Your task to perform on an android device: Look up the best rated desk lamps on IKEA Image 0: 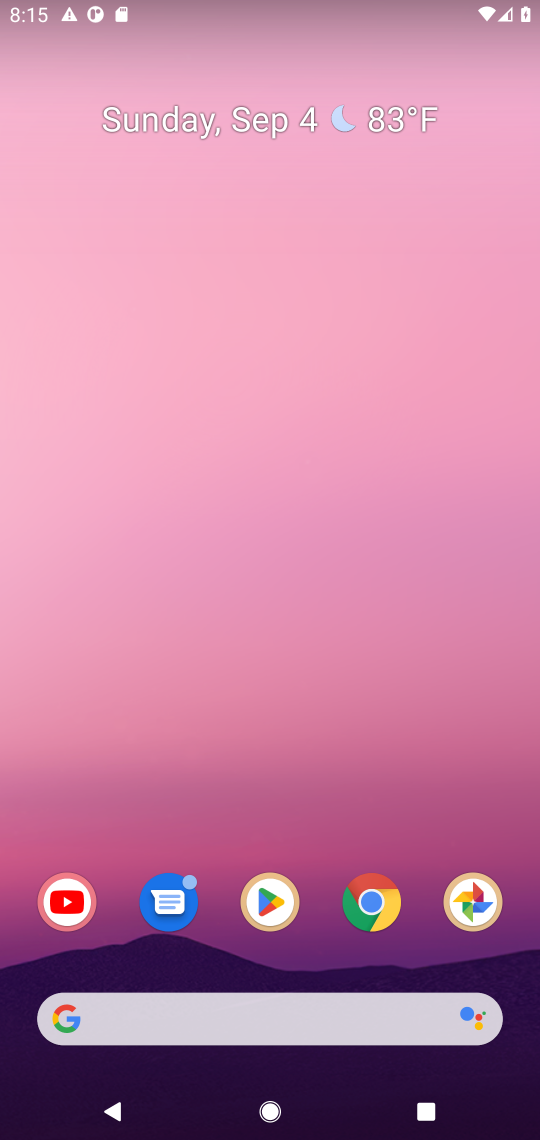
Step 0: click (62, 915)
Your task to perform on an android device: Look up the best rated desk lamps on IKEA Image 1: 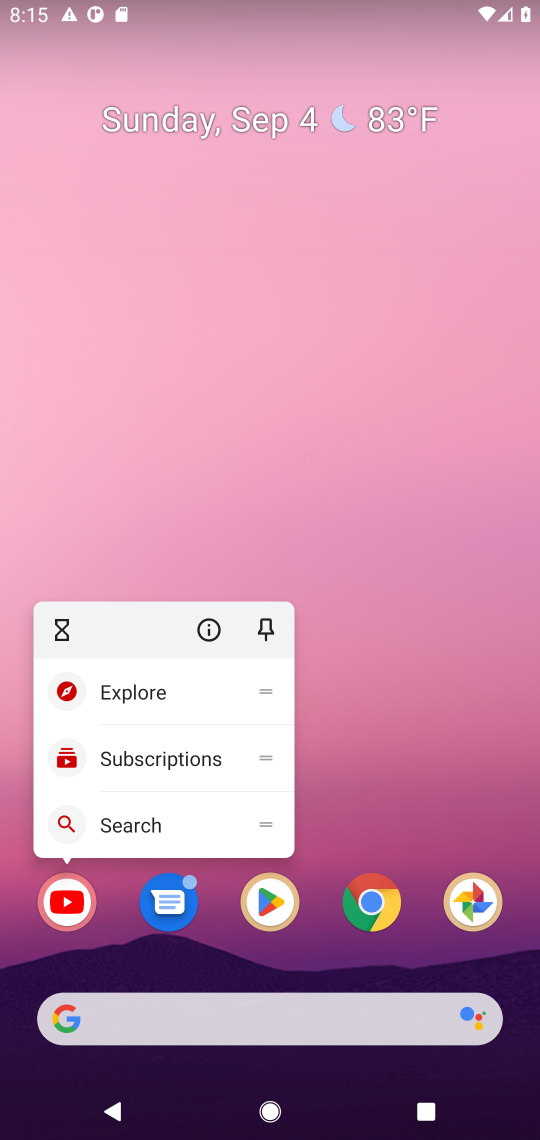
Step 1: click (62, 915)
Your task to perform on an android device: Look up the best rated desk lamps on IKEA Image 2: 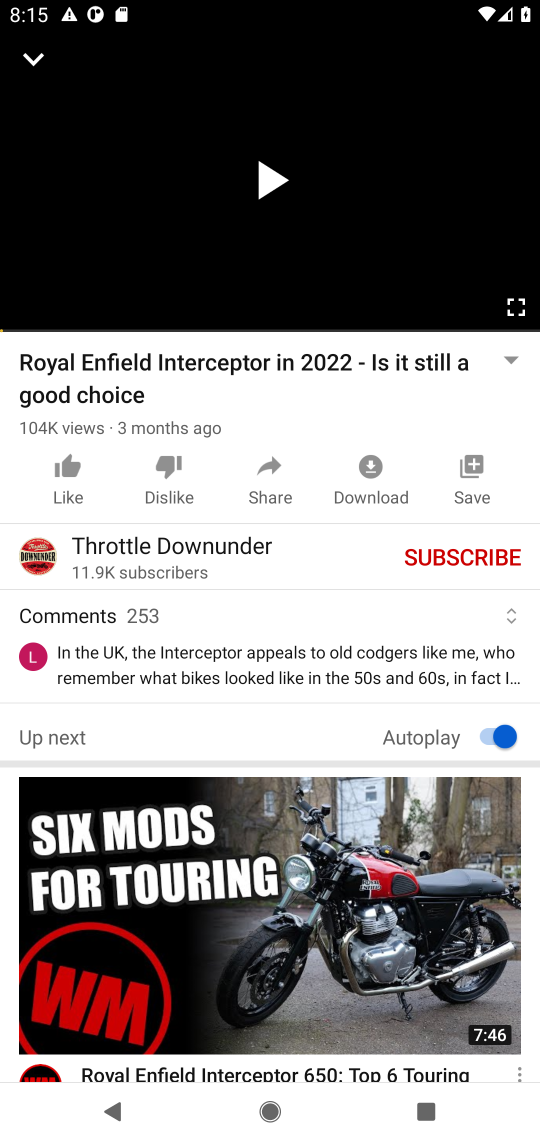
Step 2: task complete